Your task to perform on an android device: Open settings Image 0: 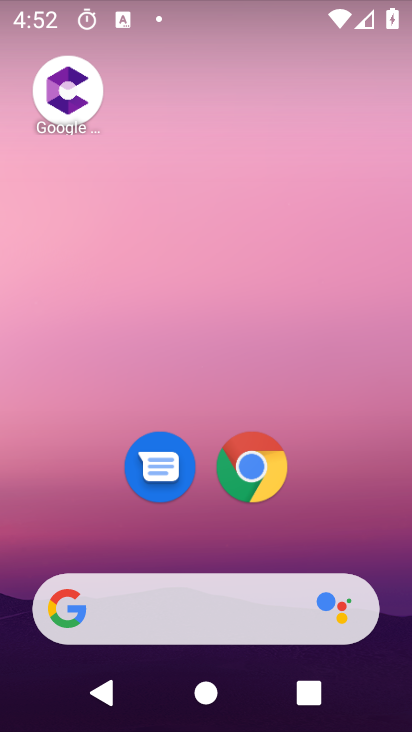
Step 0: drag from (221, 645) to (241, 0)
Your task to perform on an android device: Open settings Image 1: 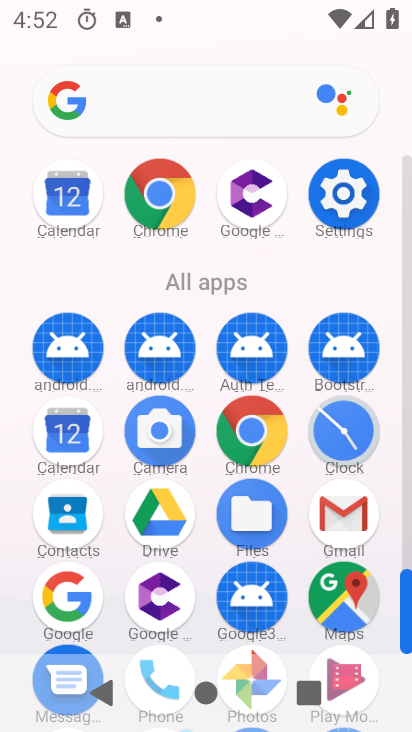
Step 1: click (351, 173)
Your task to perform on an android device: Open settings Image 2: 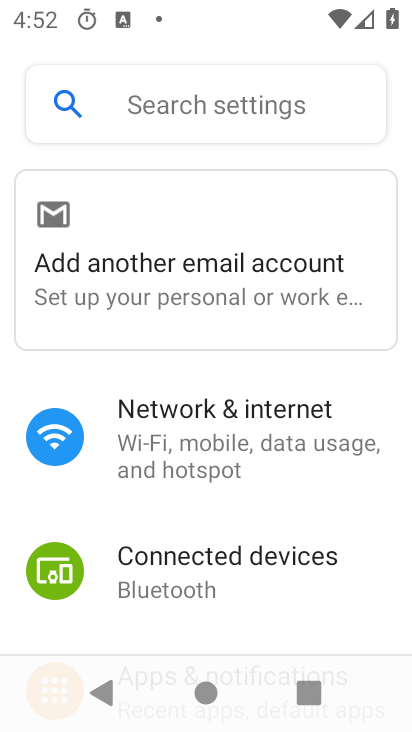
Step 2: task complete